Your task to perform on an android device: turn off smart reply in the gmail app Image 0: 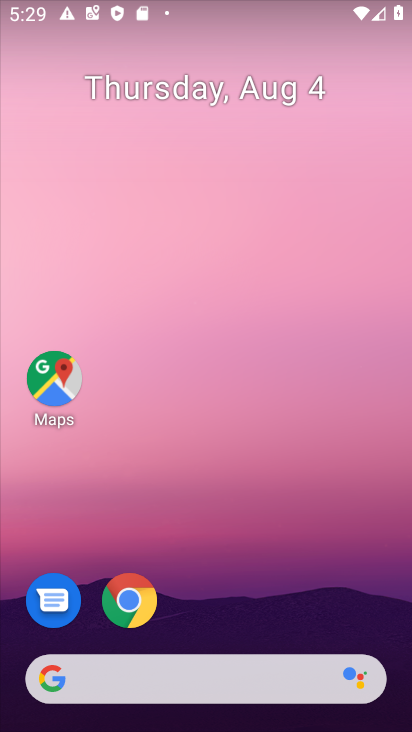
Step 0: drag from (213, 598) to (283, 95)
Your task to perform on an android device: turn off smart reply in the gmail app Image 1: 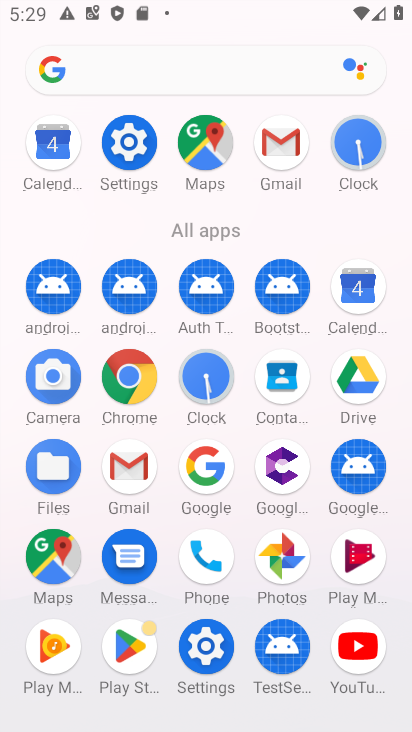
Step 1: click (284, 146)
Your task to perform on an android device: turn off smart reply in the gmail app Image 2: 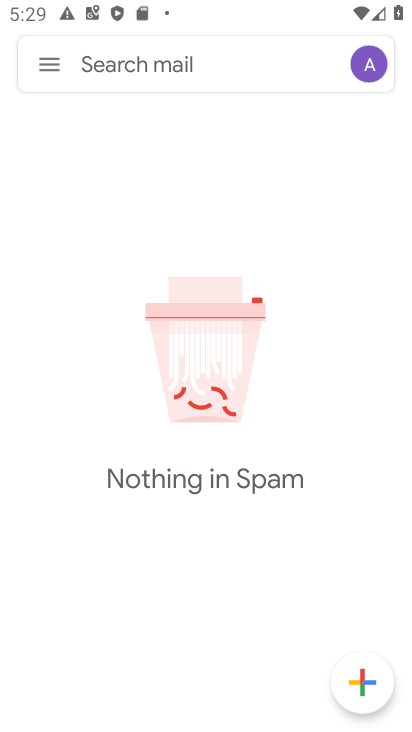
Step 2: click (46, 68)
Your task to perform on an android device: turn off smart reply in the gmail app Image 3: 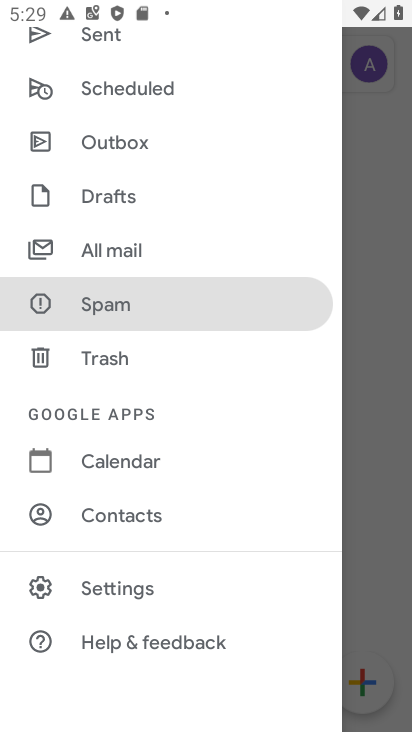
Step 3: click (128, 586)
Your task to perform on an android device: turn off smart reply in the gmail app Image 4: 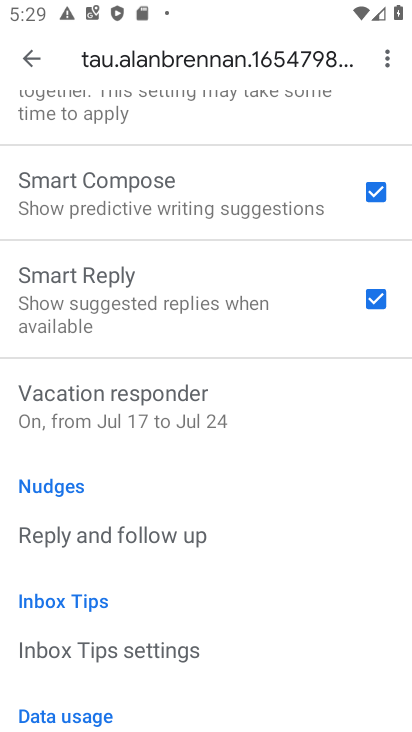
Step 4: click (373, 296)
Your task to perform on an android device: turn off smart reply in the gmail app Image 5: 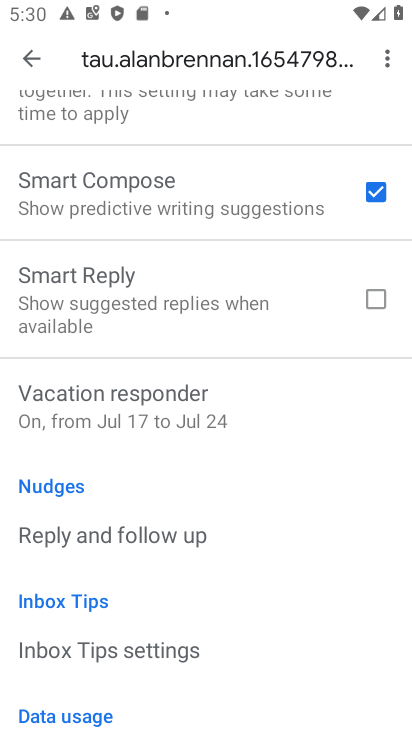
Step 5: task complete